Your task to perform on an android device: uninstall "Mercado Libre" Image 0: 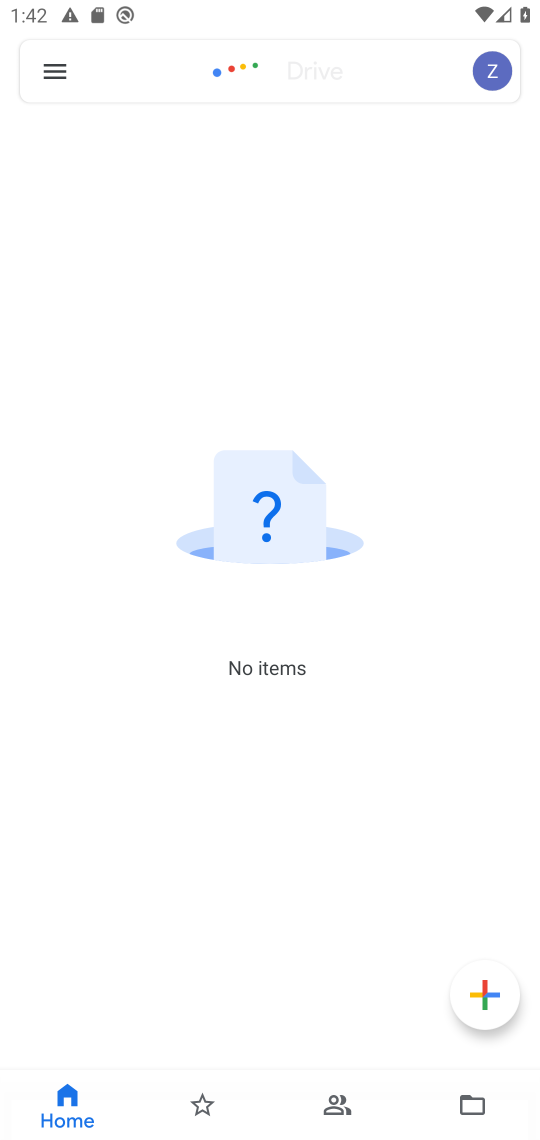
Step 0: press home button
Your task to perform on an android device: uninstall "Mercado Libre" Image 1: 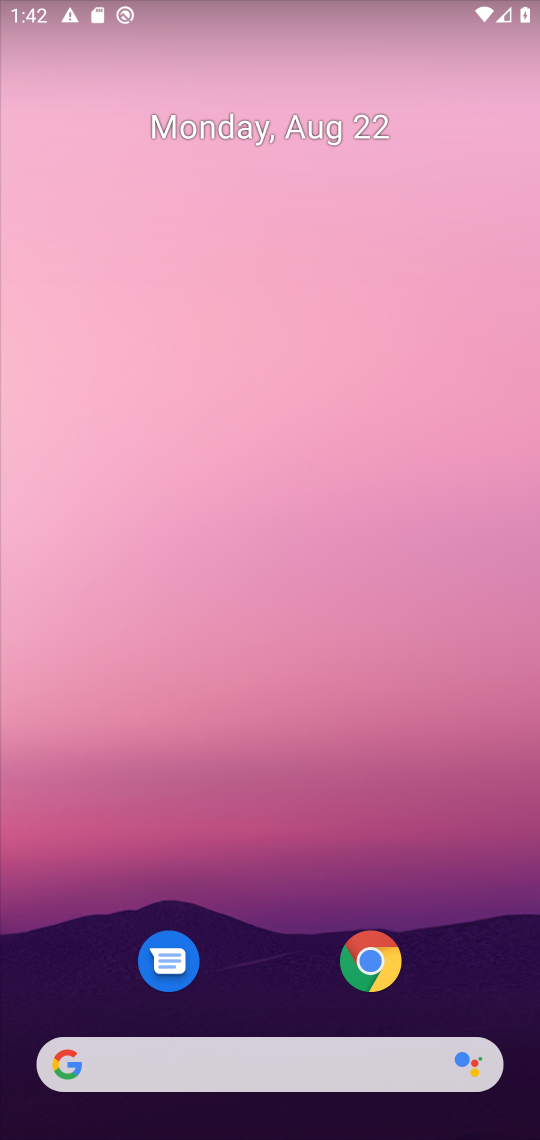
Step 1: drag from (464, 975) to (497, 159)
Your task to perform on an android device: uninstall "Mercado Libre" Image 2: 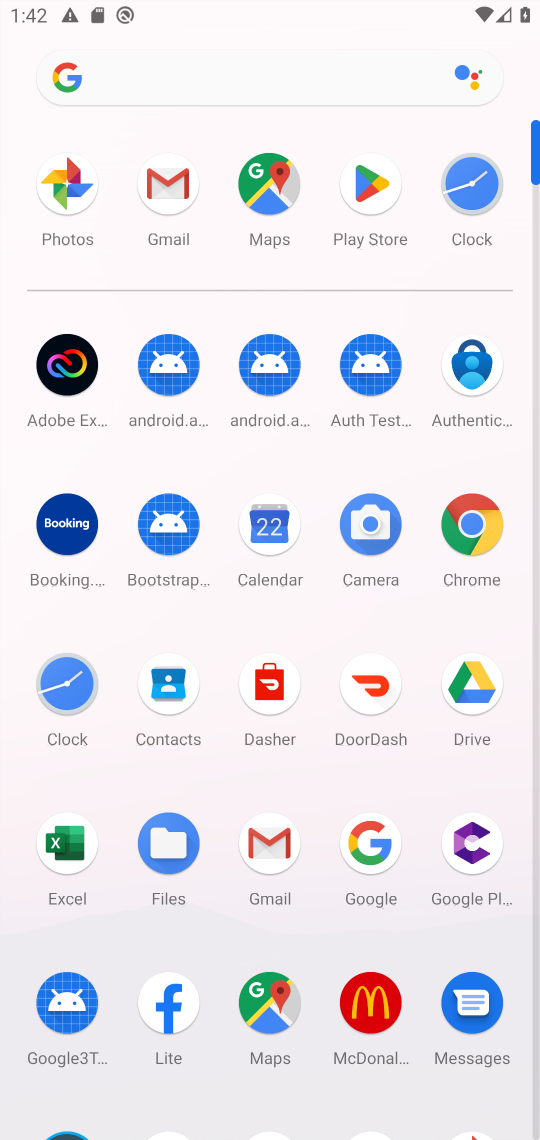
Step 2: click (366, 201)
Your task to perform on an android device: uninstall "Mercado Libre" Image 3: 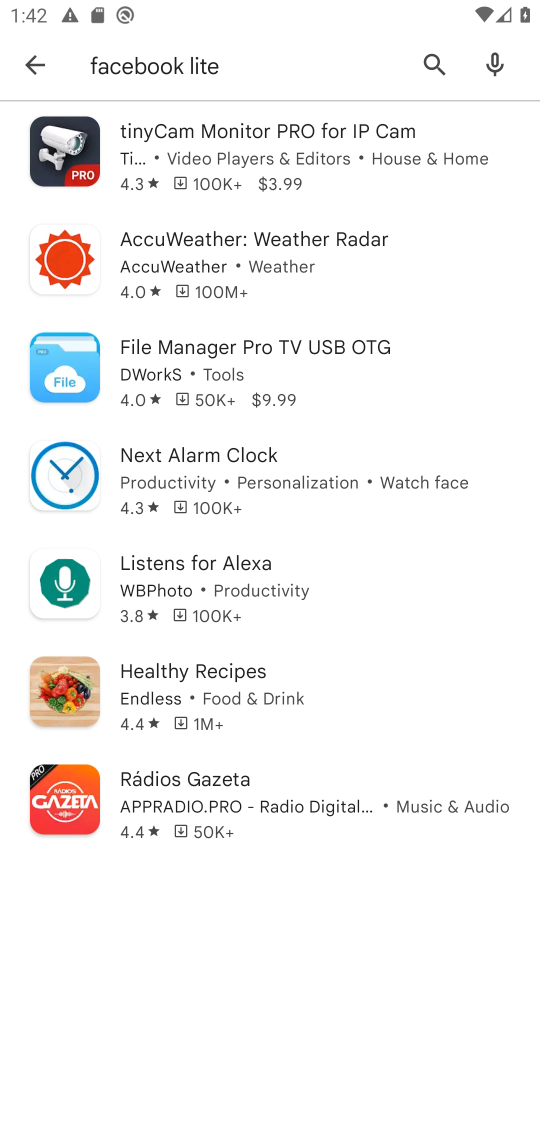
Step 3: press back button
Your task to perform on an android device: uninstall "Mercado Libre" Image 4: 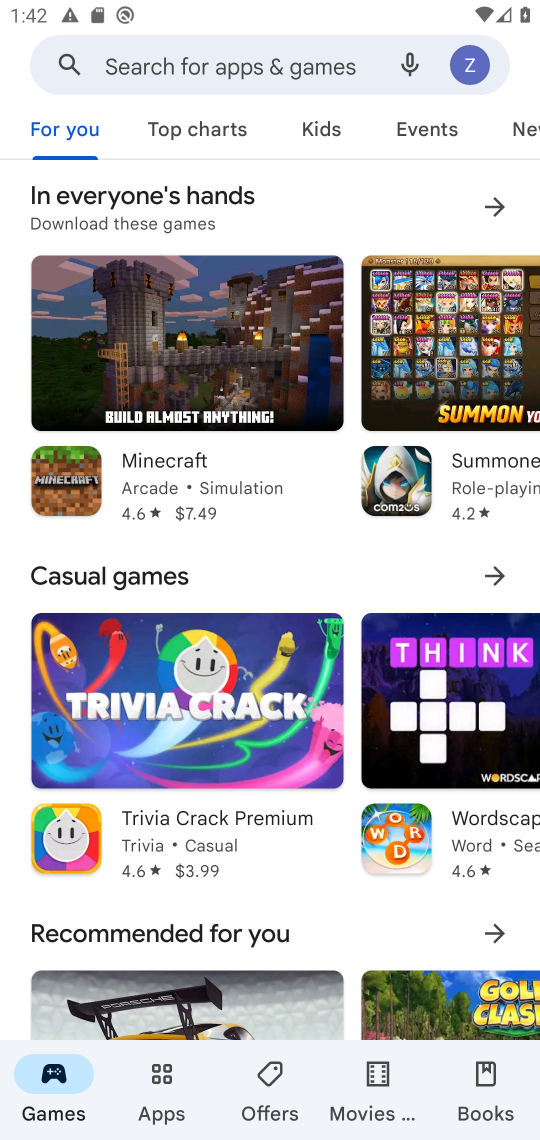
Step 4: click (286, 63)
Your task to perform on an android device: uninstall "Mercado Libre" Image 5: 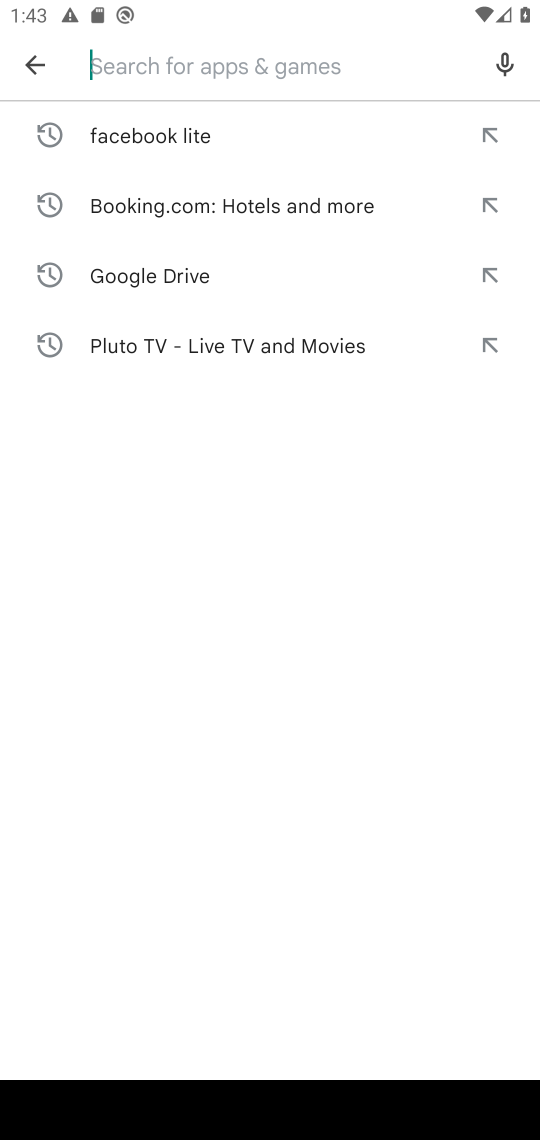
Step 5: press enter
Your task to perform on an android device: uninstall "Mercado Libre" Image 6: 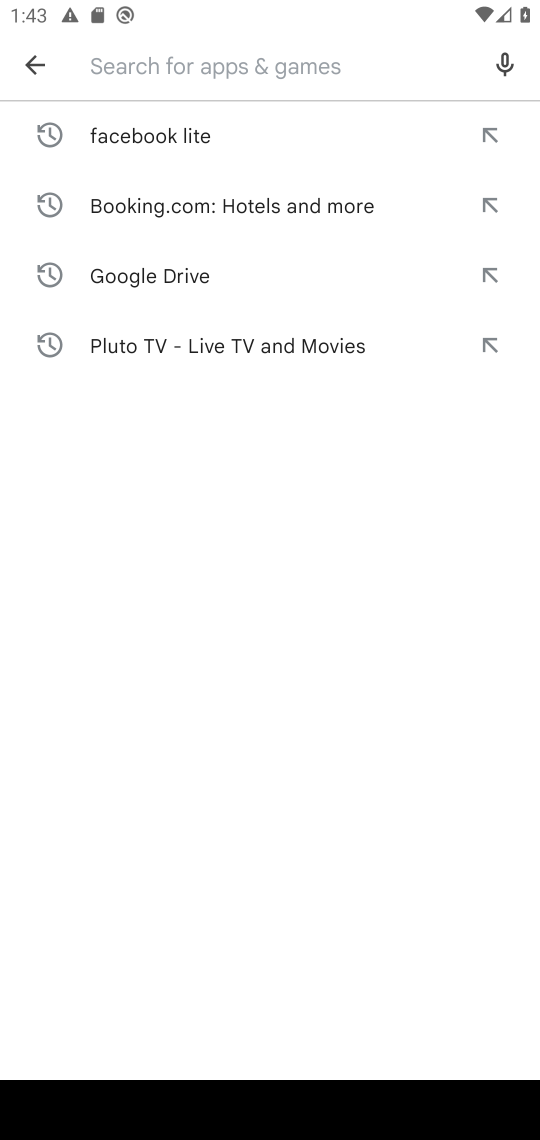
Step 6: type "Mercado Libre"
Your task to perform on an android device: uninstall "Mercado Libre" Image 7: 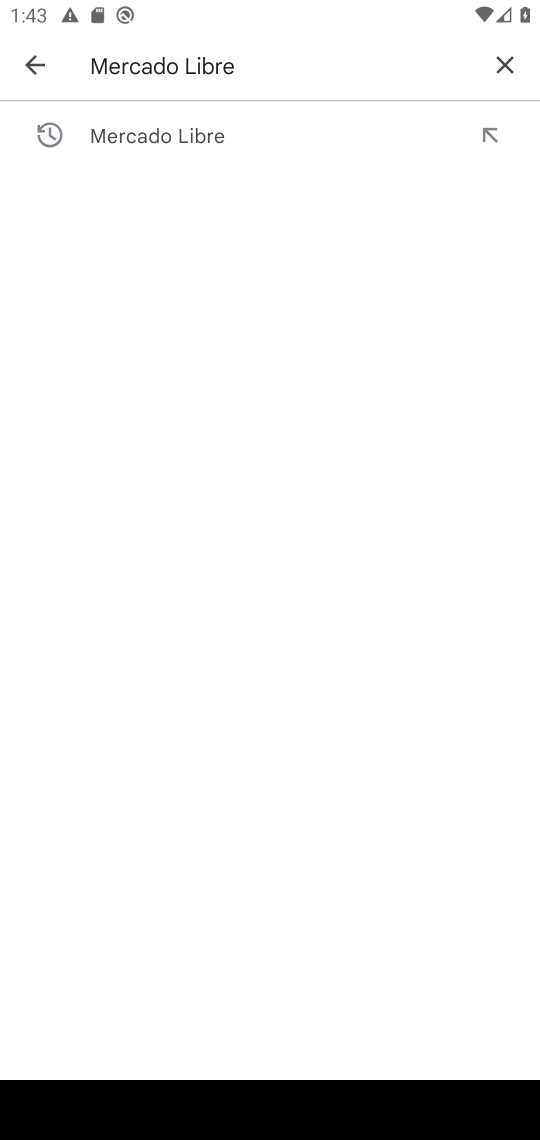
Step 7: click (205, 135)
Your task to perform on an android device: uninstall "Mercado Libre" Image 8: 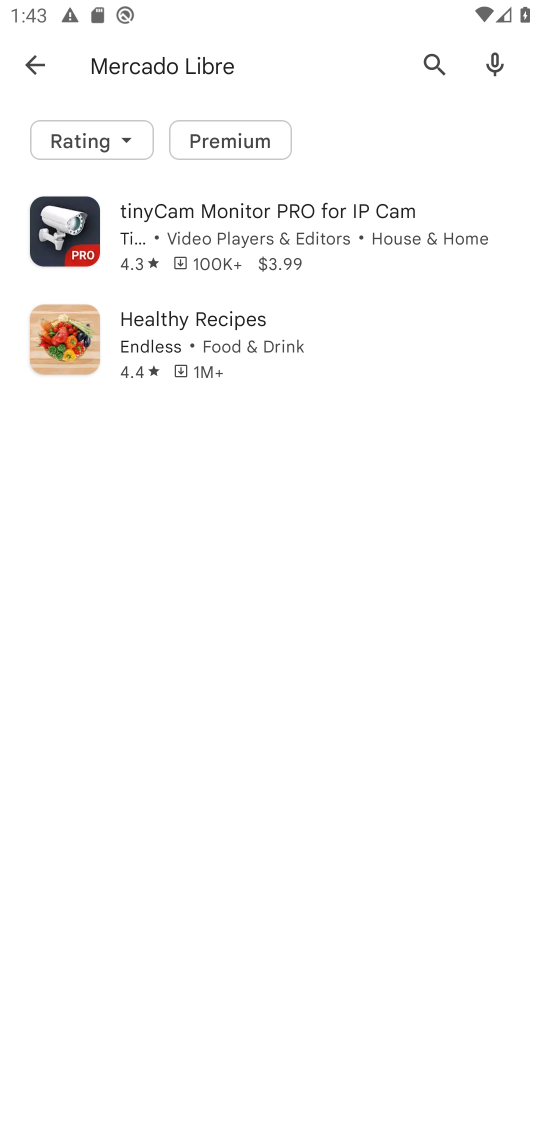
Step 8: task complete